Your task to perform on an android device: toggle javascript in the chrome app Image 0: 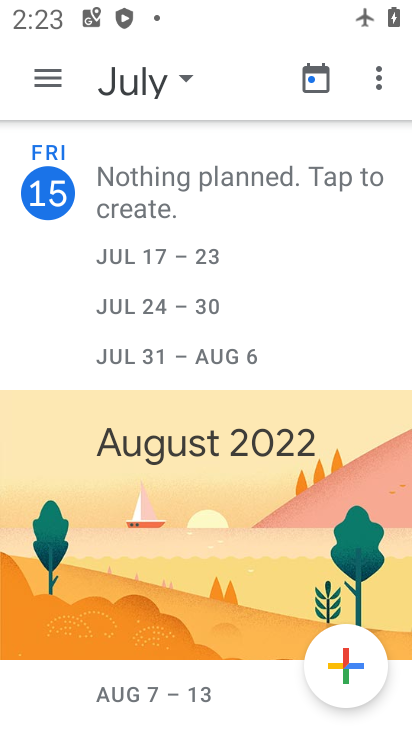
Step 0: press home button
Your task to perform on an android device: toggle javascript in the chrome app Image 1: 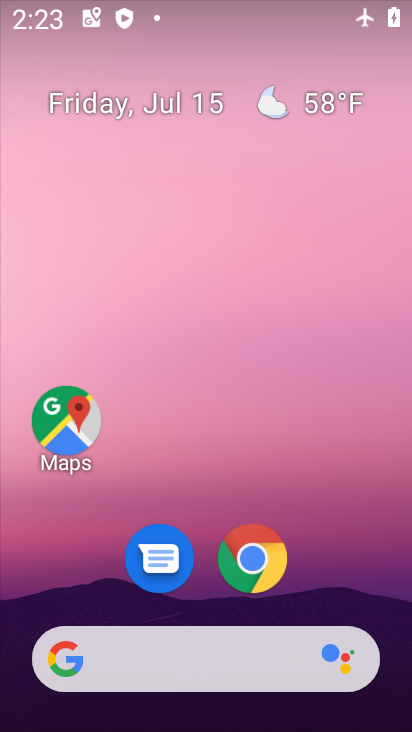
Step 1: drag from (361, 584) to (387, 128)
Your task to perform on an android device: toggle javascript in the chrome app Image 2: 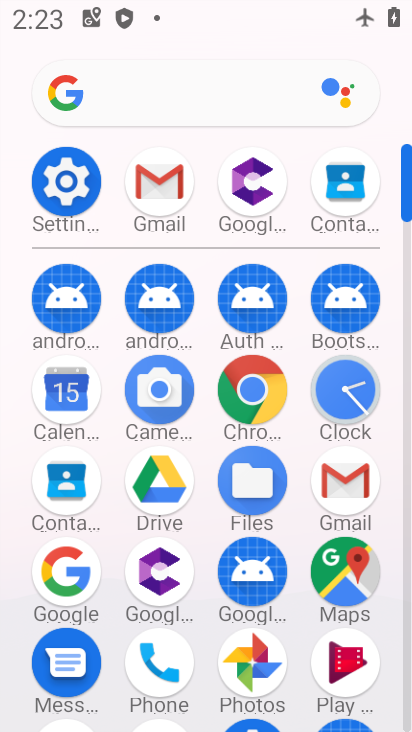
Step 2: click (272, 394)
Your task to perform on an android device: toggle javascript in the chrome app Image 3: 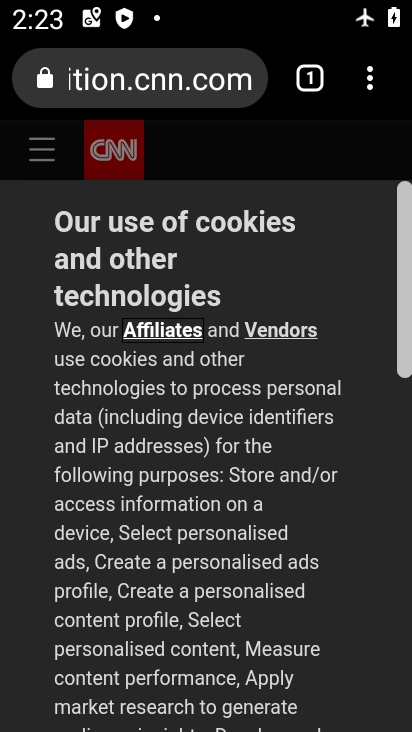
Step 3: click (368, 88)
Your task to perform on an android device: toggle javascript in the chrome app Image 4: 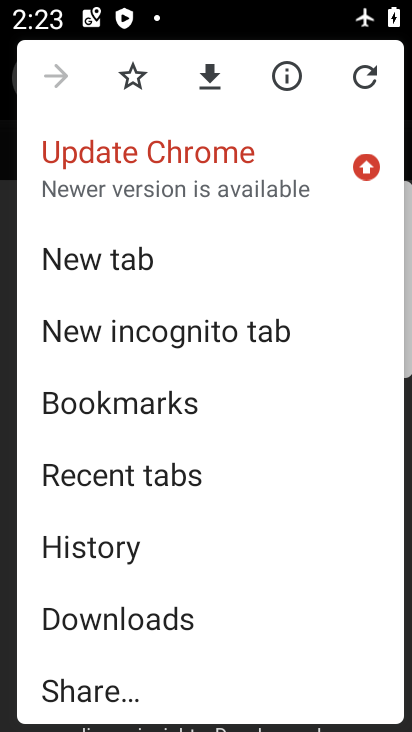
Step 4: drag from (342, 456) to (350, 388)
Your task to perform on an android device: toggle javascript in the chrome app Image 5: 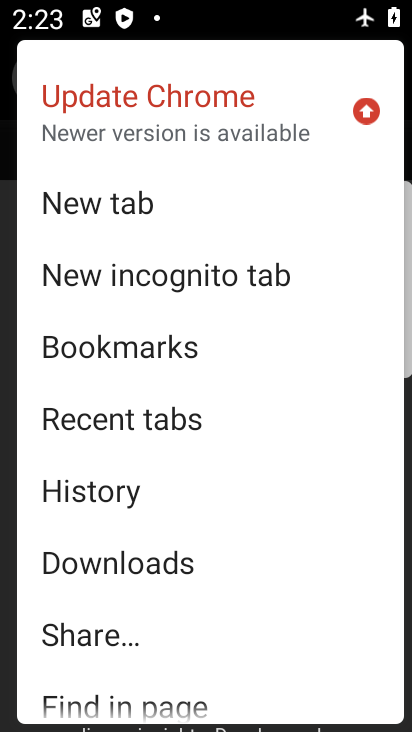
Step 5: drag from (332, 534) to (342, 435)
Your task to perform on an android device: toggle javascript in the chrome app Image 6: 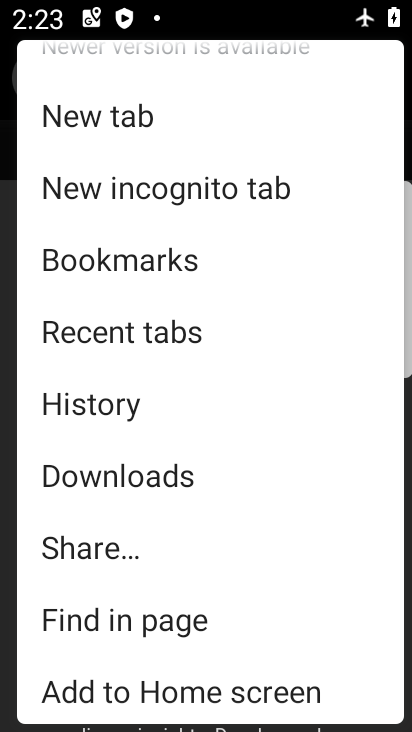
Step 6: drag from (296, 536) to (310, 457)
Your task to perform on an android device: toggle javascript in the chrome app Image 7: 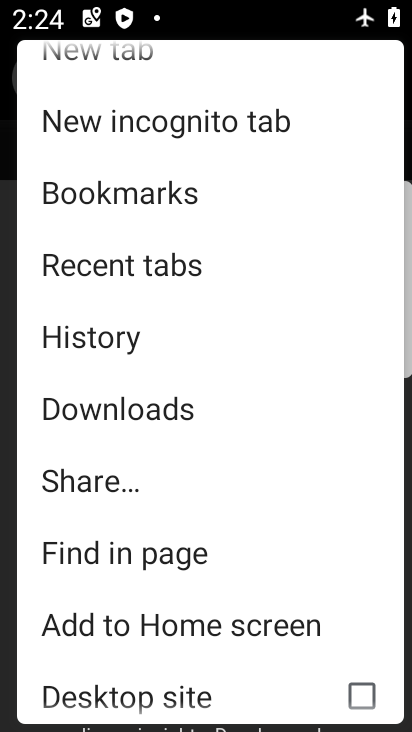
Step 7: drag from (319, 536) to (317, 413)
Your task to perform on an android device: toggle javascript in the chrome app Image 8: 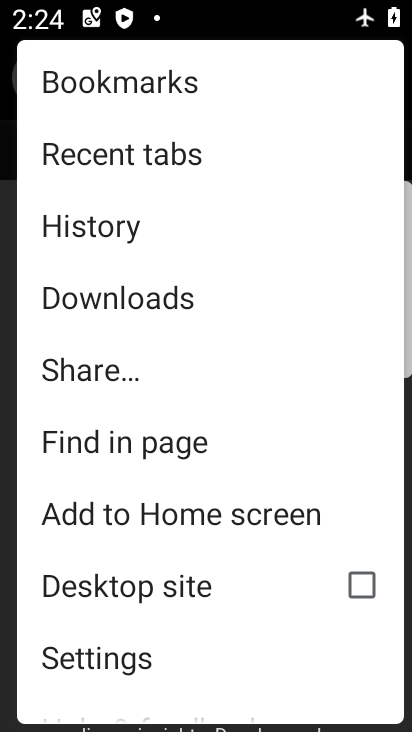
Step 8: drag from (282, 589) to (282, 468)
Your task to perform on an android device: toggle javascript in the chrome app Image 9: 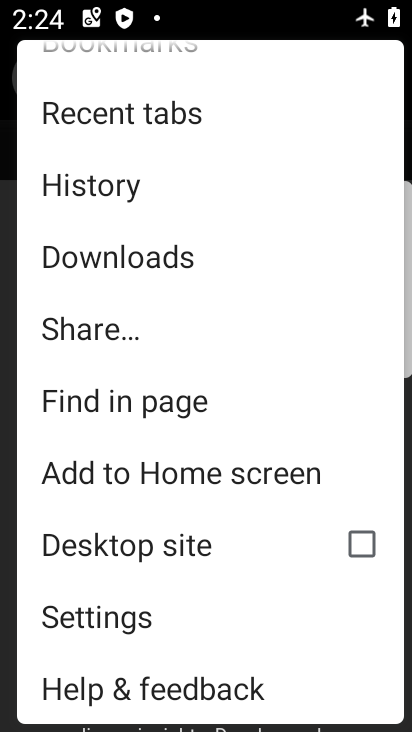
Step 9: click (193, 641)
Your task to perform on an android device: toggle javascript in the chrome app Image 10: 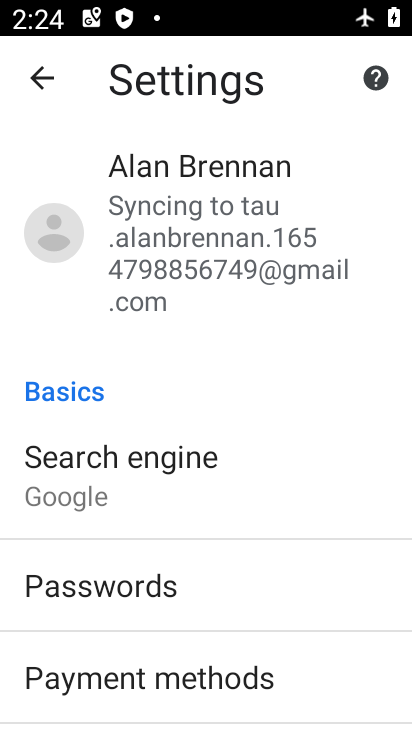
Step 10: drag from (331, 591) to (347, 473)
Your task to perform on an android device: toggle javascript in the chrome app Image 11: 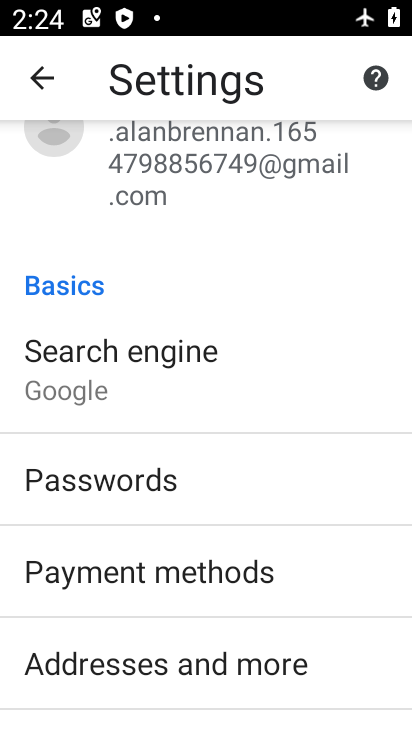
Step 11: drag from (349, 580) to (348, 461)
Your task to perform on an android device: toggle javascript in the chrome app Image 12: 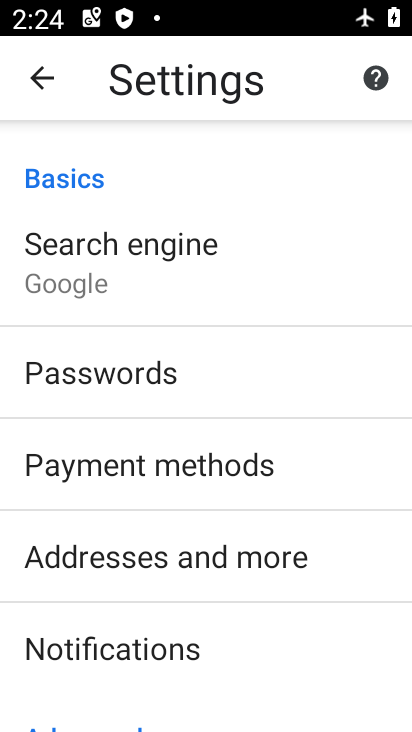
Step 12: drag from (342, 599) to (329, 505)
Your task to perform on an android device: toggle javascript in the chrome app Image 13: 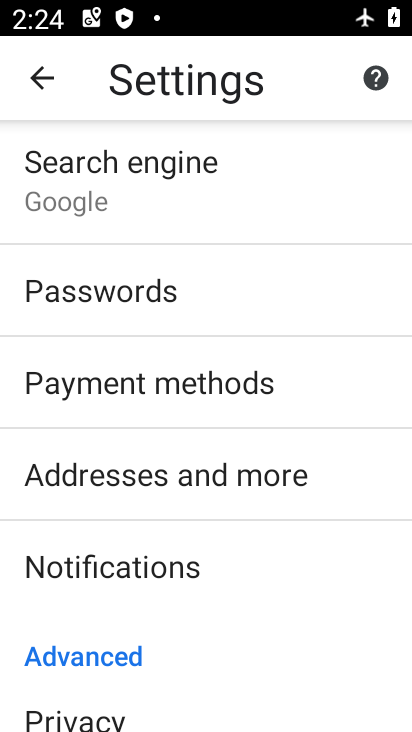
Step 13: drag from (329, 590) to (323, 498)
Your task to perform on an android device: toggle javascript in the chrome app Image 14: 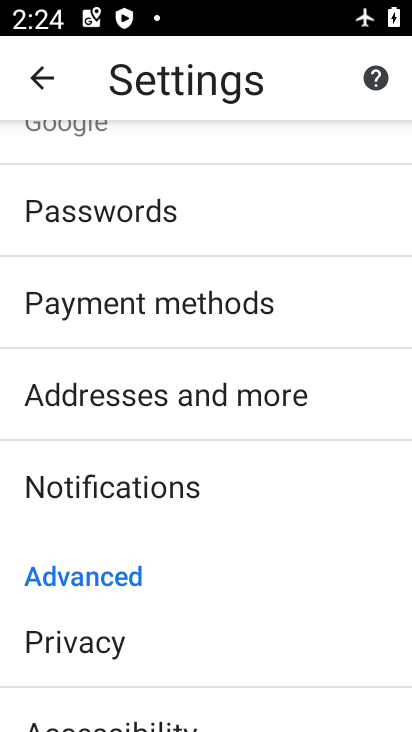
Step 14: drag from (323, 584) to (325, 501)
Your task to perform on an android device: toggle javascript in the chrome app Image 15: 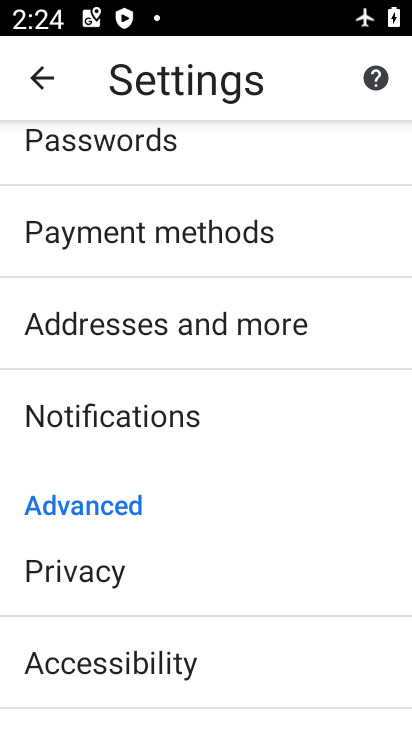
Step 15: drag from (296, 595) to (291, 461)
Your task to perform on an android device: toggle javascript in the chrome app Image 16: 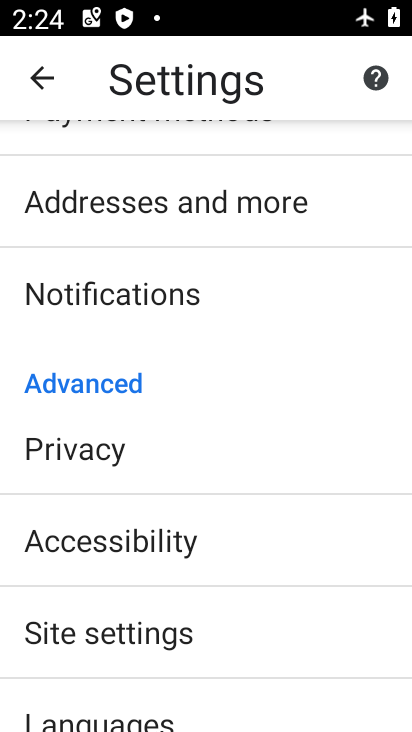
Step 16: drag from (281, 594) to (272, 488)
Your task to perform on an android device: toggle javascript in the chrome app Image 17: 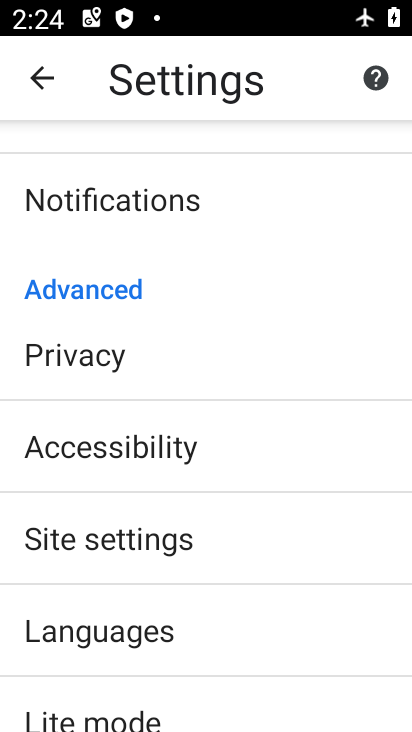
Step 17: click (262, 533)
Your task to perform on an android device: toggle javascript in the chrome app Image 18: 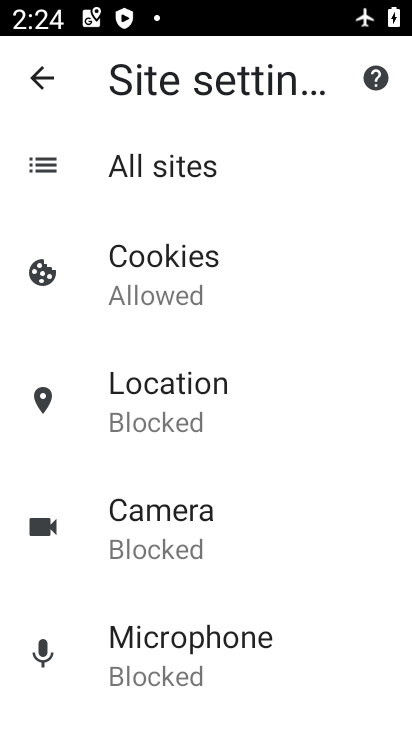
Step 18: drag from (334, 526) to (338, 423)
Your task to perform on an android device: toggle javascript in the chrome app Image 19: 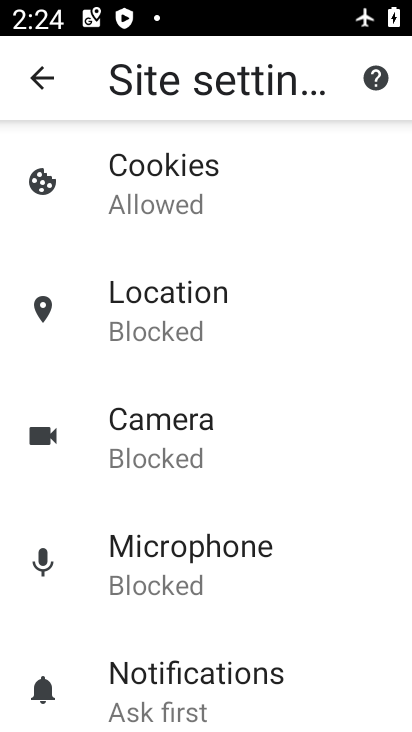
Step 19: drag from (359, 530) to (351, 408)
Your task to perform on an android device: toggle javascript in the chrome app Image 20: 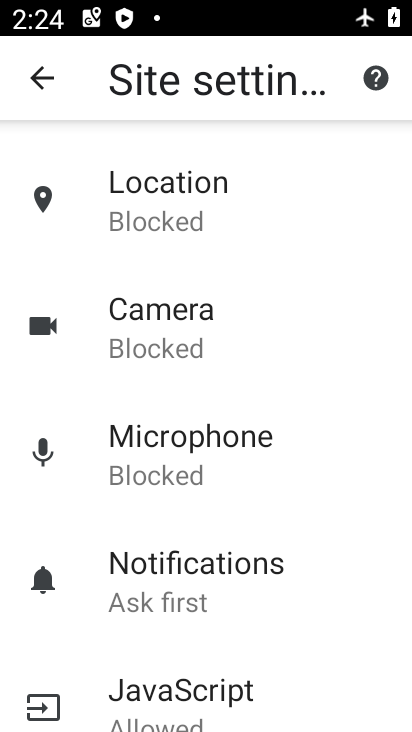
Step 20: drag from (351, 539) to (341, 429)
Your task to perform on an android device: toggle javascript in the chrome app Image 21: 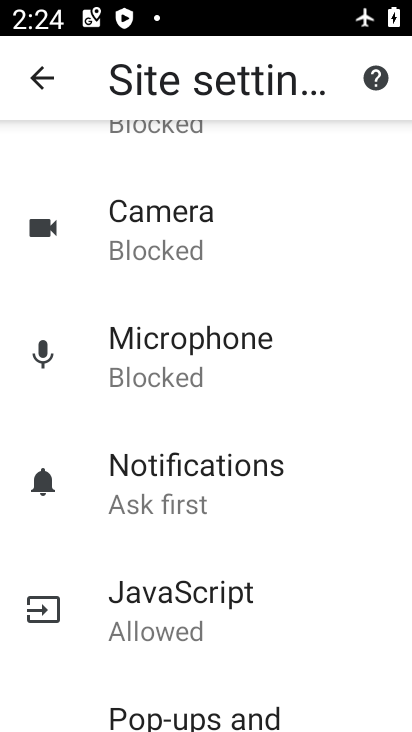
Step 21: drag from (336, 555) to (322, 440)
Your task to perform on an android device: toggle javascript in the chrome app Image 22: 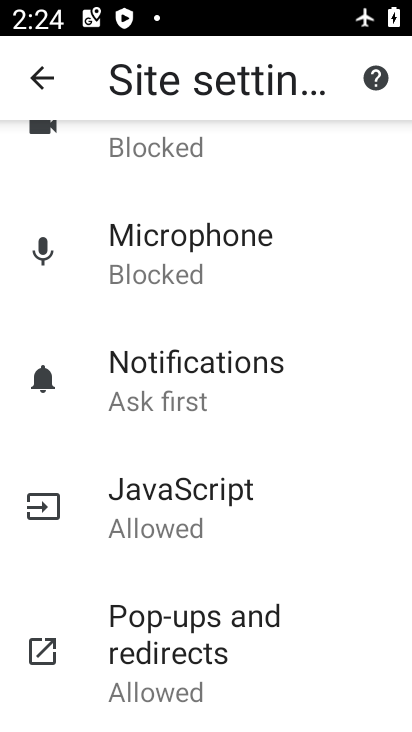
Step 22: drag from (309, 526) to (306, 413)
Your task to perform on an android device: toggle javascript in the chrome app Image 23: 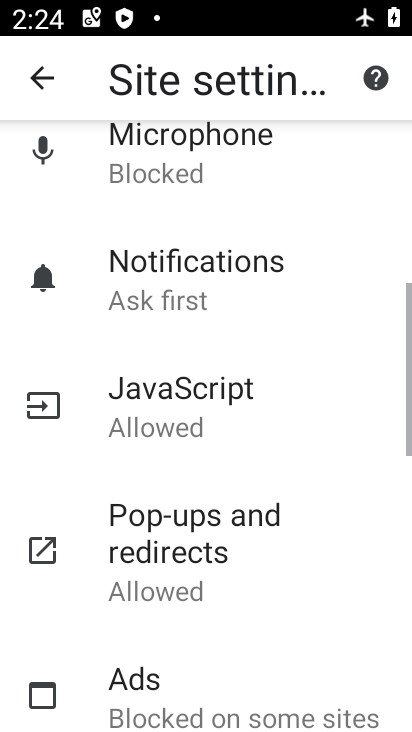
Step 23: click (262, 415)
Your task to perform on an android device: toggle javascript in the chrome app Image 24: 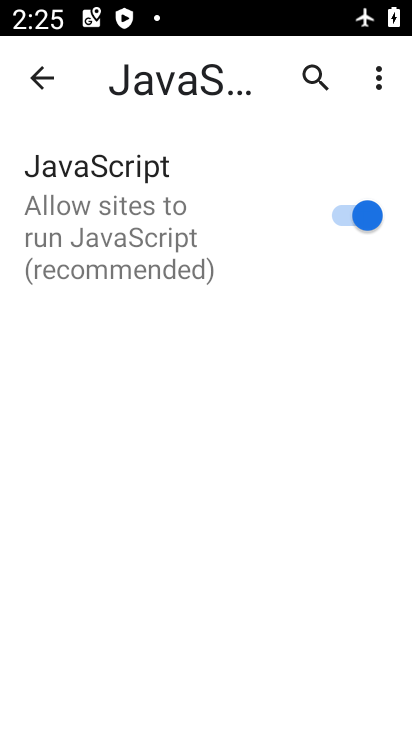
Step 24: click (356, 222)
Your task to perform on an android device: toggle javascript in the chrome app Image 25: 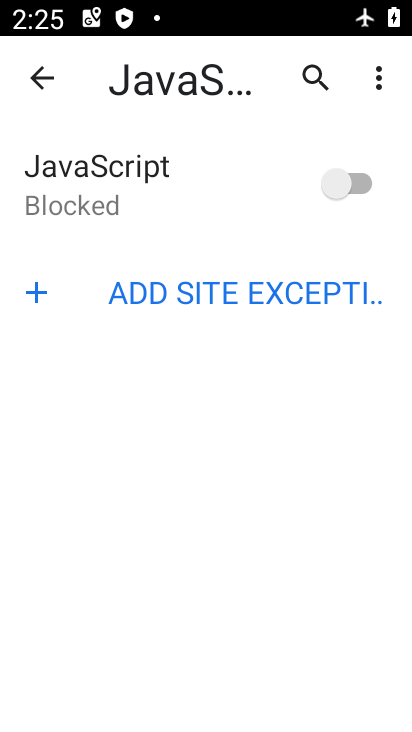
Step 25: task complete